Your task to perform on an android device: search for starred emails in the gmail app Image 0: 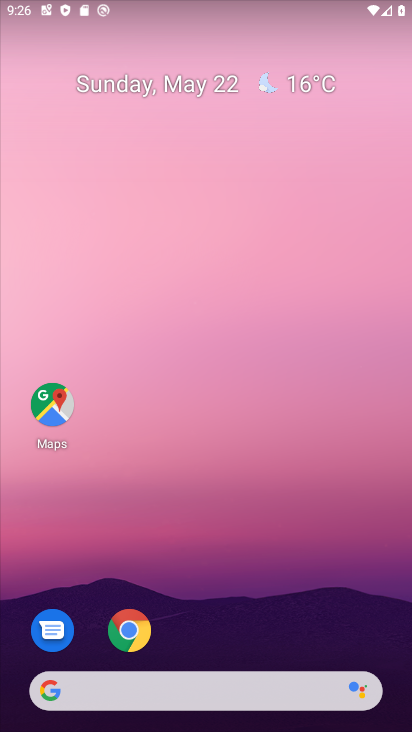
Step 0: drag from (386, 649) to (349, 33)
Your task to perform on an android device: search for starred emails in the gmail app Image 1: 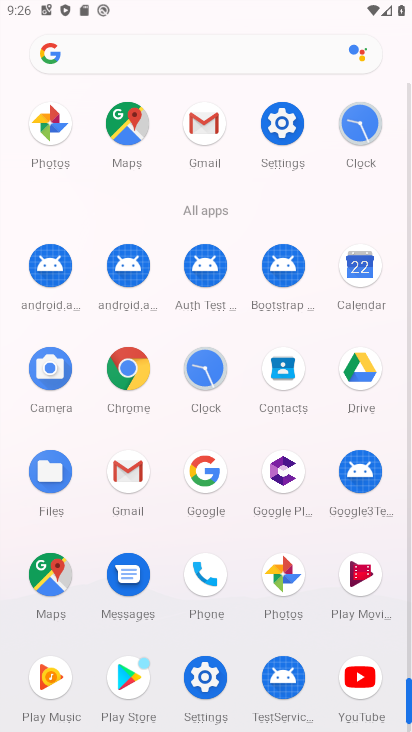
Step 1: click (127, 472)
Your task to perform on an android device: search for starred emails in the gmail app Image 2: 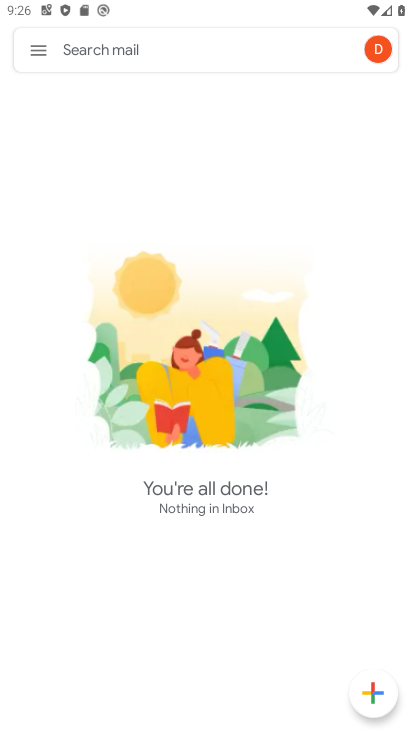
Step 2: click (37, 49)
Your task to perform on an android device: search for starred emails in the gmail app Image 3: 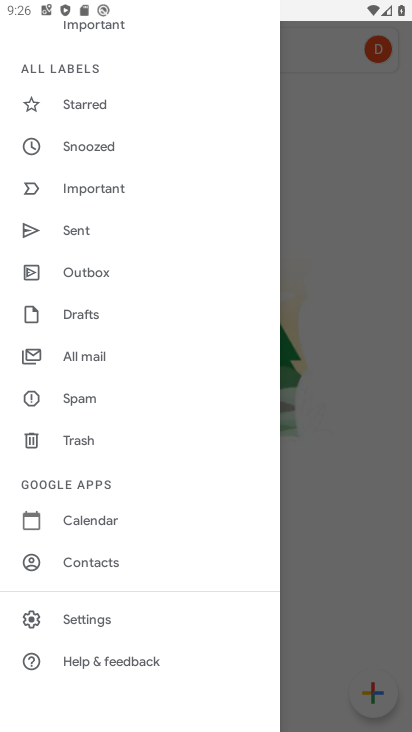
Step 3: click (89, 102)
Your task to perform on an android device: search for starred emails in the gmail app Image 4: 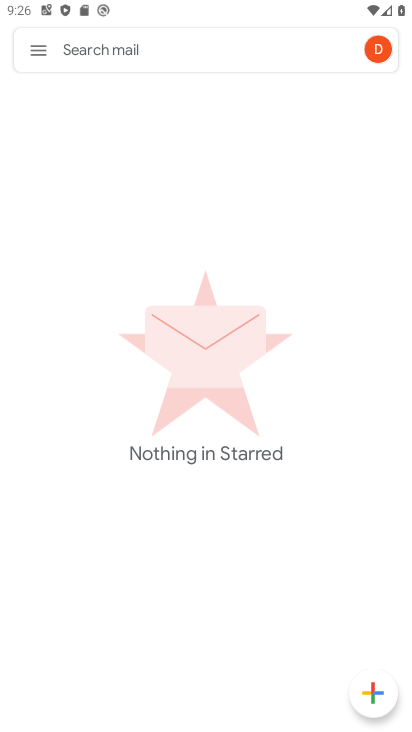
Step 4: task complete